Your task to perform on an android device: turn notification dots off Image 0: 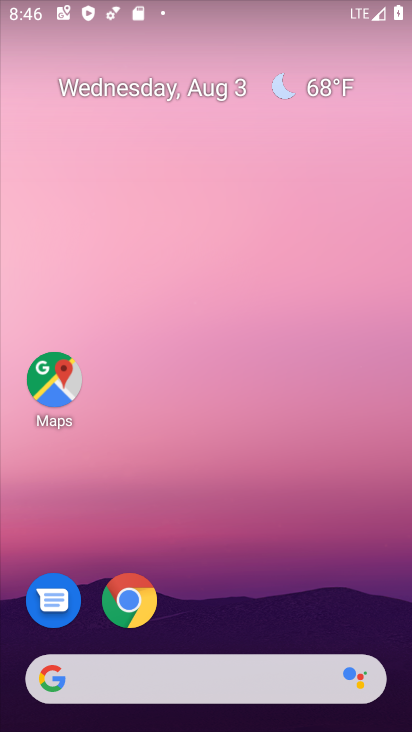
Step 0: drag from (212, 635) to (195, 41)
Your task to perform on an android device: turn notification dots off Image 1: 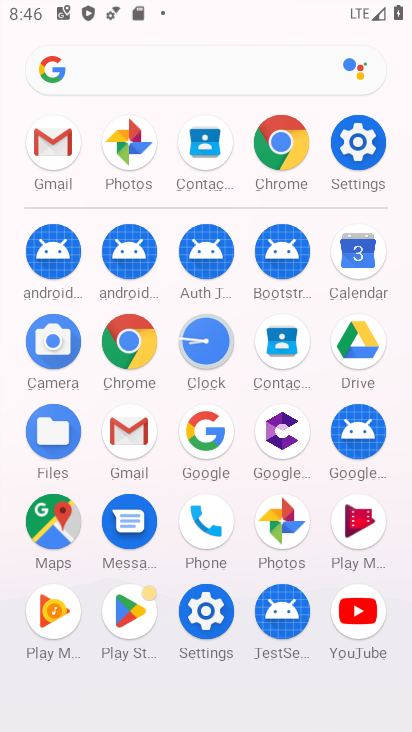
Step 1: click (366, 155)
Your task to perform on an android device: turn notification dots off Image 2: 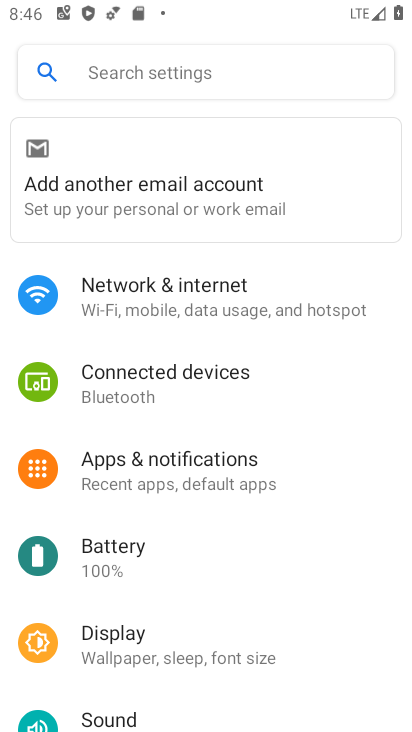
Step 2: click (214, 484)
Your task to perform on an android device: turn notification dots off Image 3: 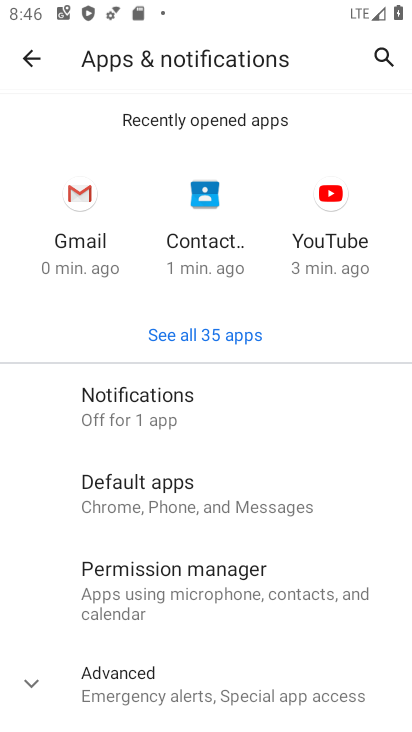
Step 3: click (172, 413)
Your task to perform on an android device: turn notification dots off Image 4: 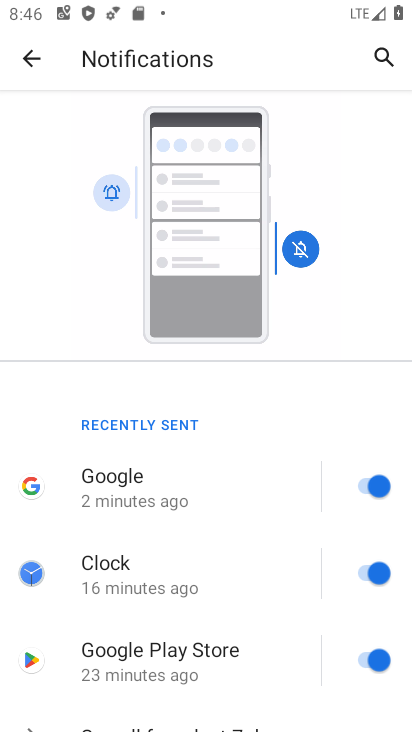
Step 4: drag from (164, 530) to (177, 336)
Your task to perform on an android device: turn notification dots off Image 5: 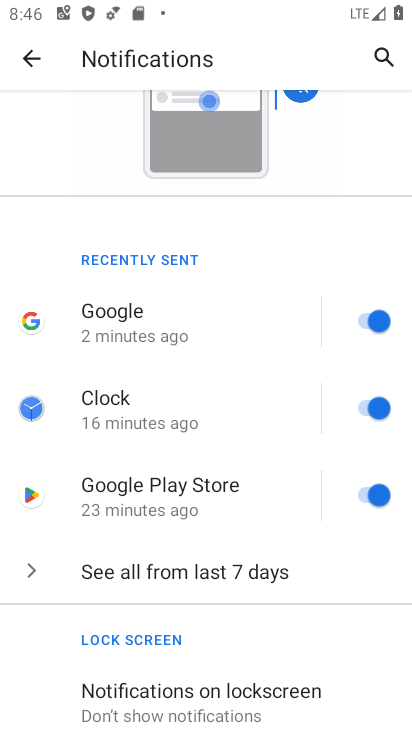
Step 5: drag from (184, 620) to (207, 305)
Your task to perform on an android device: turn notification dots off Image 6: 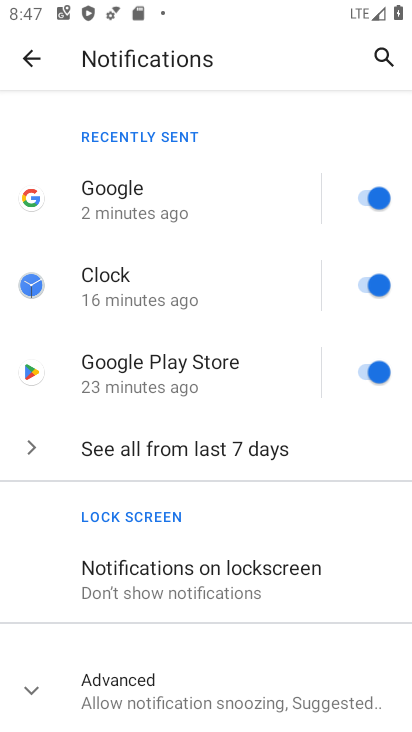
Step 6: drag from (202, 619) to (219, 413)
Your task to perform on an android device: turn notification dots off Image 7: 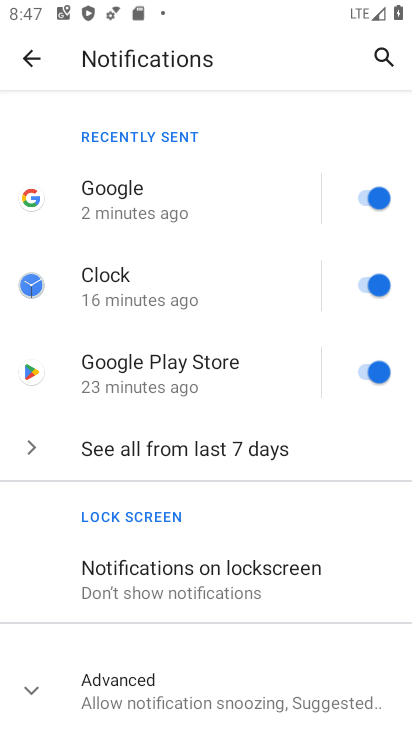
Step 7: click (135, 675)
Your task to perform on an android device: turn notification dots off Image 8: 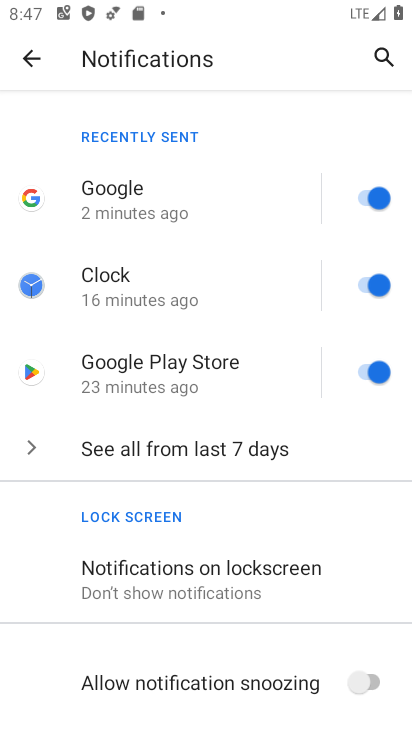
Step 8: drag from (153, 672) to (178, 348)
Your task to perform on an android device: turn notification dots off Image 9: 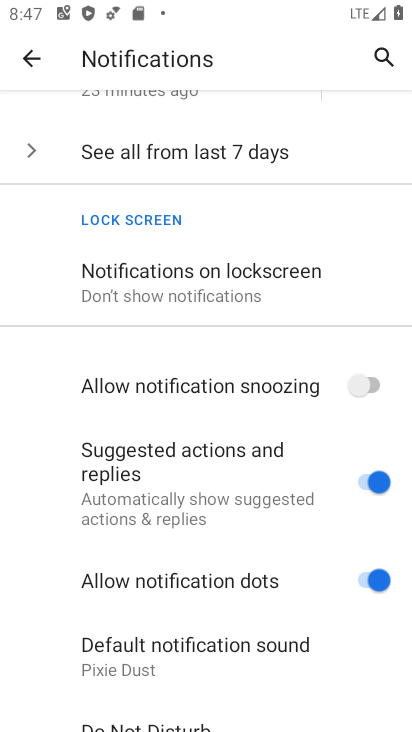
Step 9: click (344, 579)
Your task to perform on an android device: turn notification dots off Image 10: 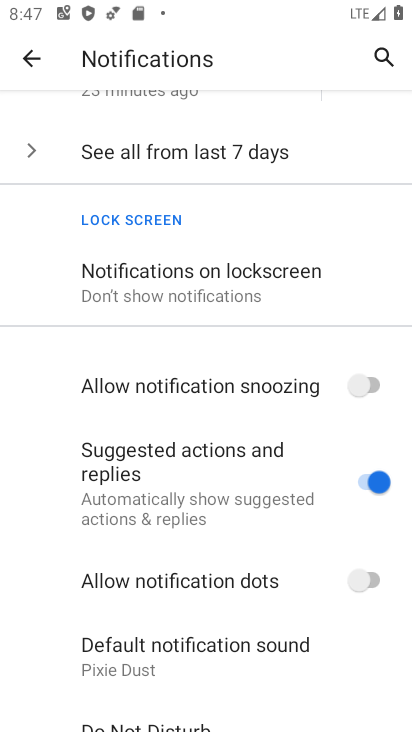
Step 10: task complete